Your task to perform on an android device: turn on improve location accuracy Image 0: 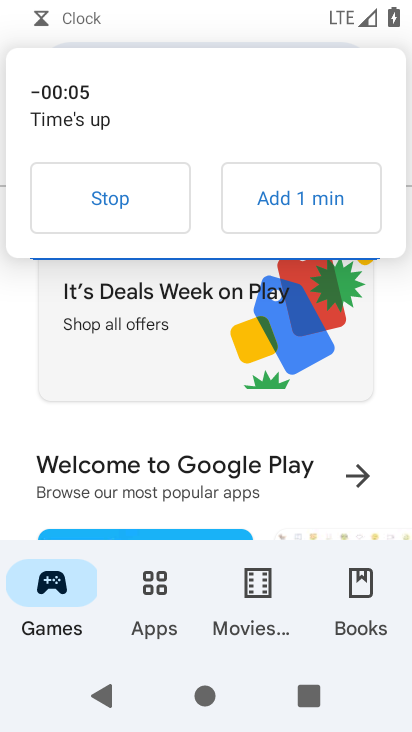
Step 0: press home button
Your task to perform on an android device: turn on improve location accuracy Image 1: 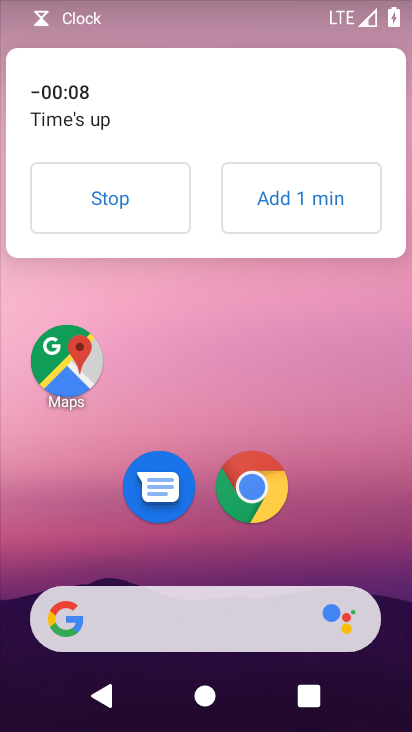
Step 1: drag from (183, 629) to (215, 234)
Your task to perform on an android device: turn on improve location accuracy Image 2: 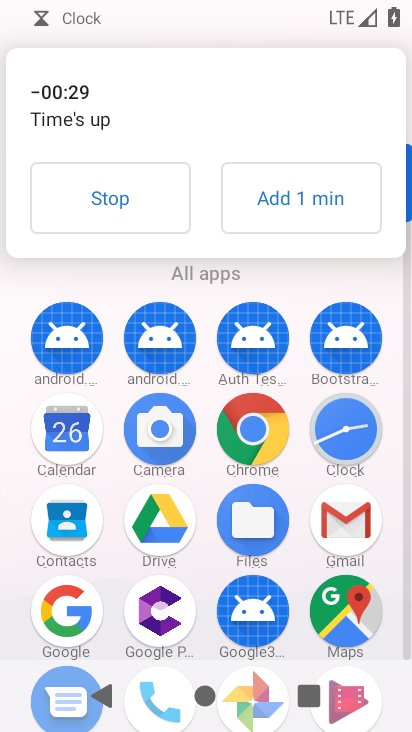
Step 2: click (140, 203)
Your task to perform on an android device: turn on improve location accuracy Image 3: 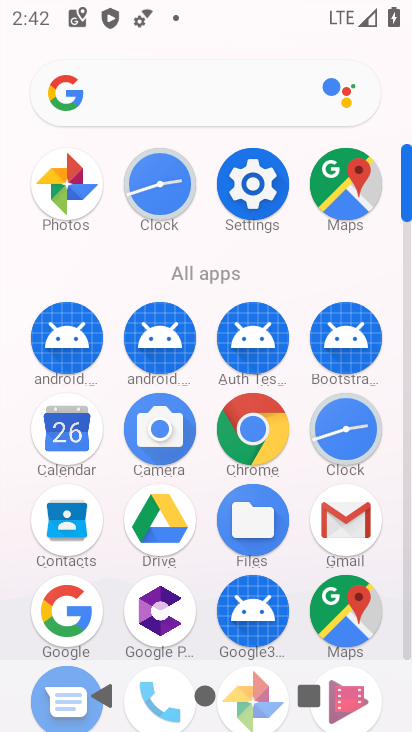
Step 3: click (247, 198)
Your task to perform on an android device: turn on improve location accuracy Image 4: 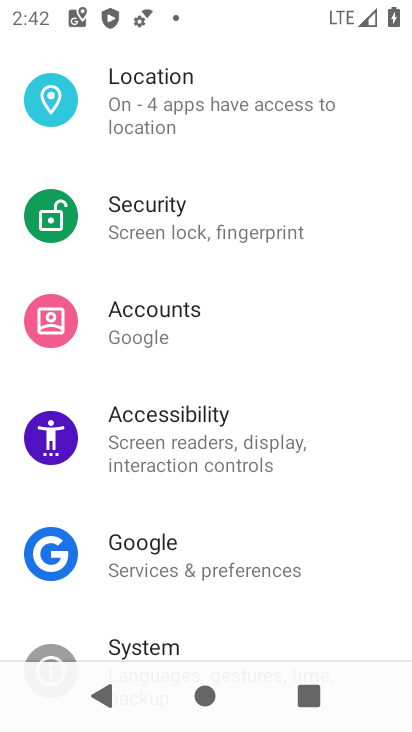
Step 4: drag from (219, 311) to (200, 542)
Your task to perform on an android device: turn on improve location accuracy Image 5: 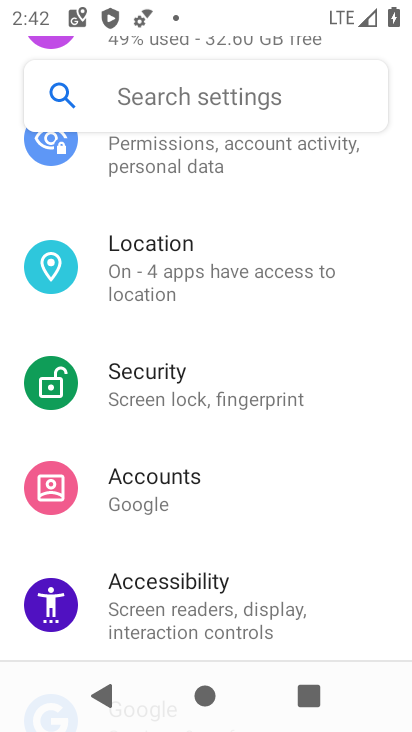
Step 5: click (271, 278)
Your task to perform on an android device: turn on improve location accuracy Image 6: 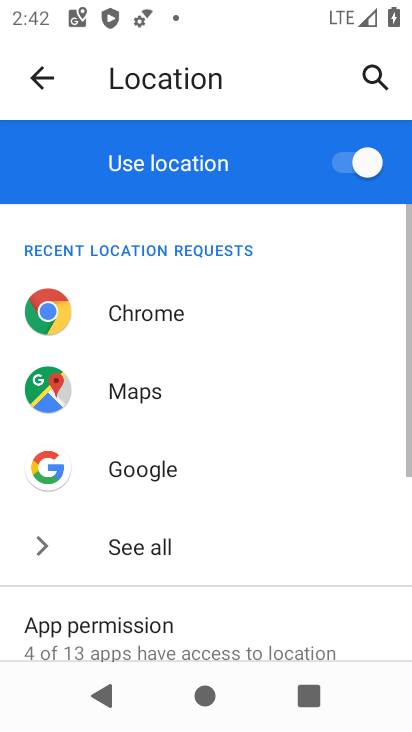
Step 6: drag from (202, 533) to (190, 254)
Your task to perform on an android device: turn on improve location accuracy Image 7: 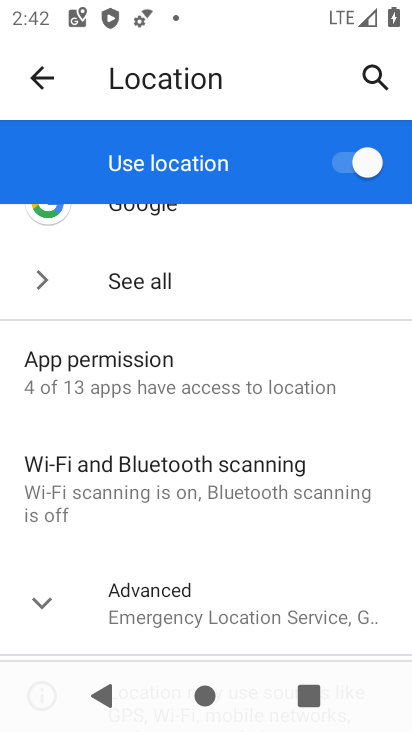
Step 7: drag from (162, 523) to (175, 358)
Your task to perform on an android device: turn on improve location accuracy Image 8: 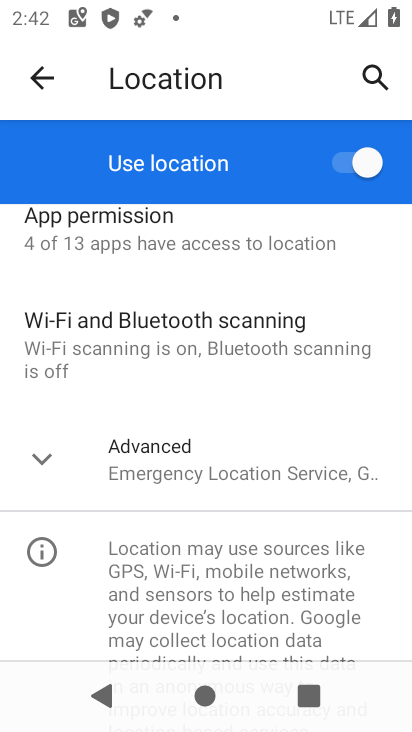
Step 8: click (208, 472)
Your task to perform on an android device: turn on improve location accuracy Image 9: 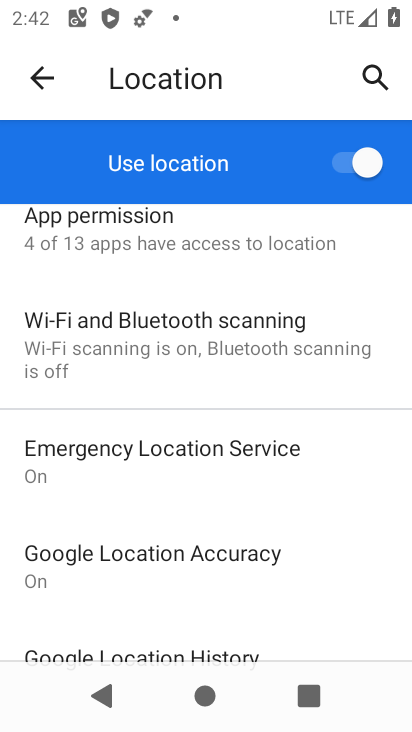
Step 9: drag from (197, 541) to (218, 415)
Your task to perform on an android device: turn on improve location accuracy Image 10: 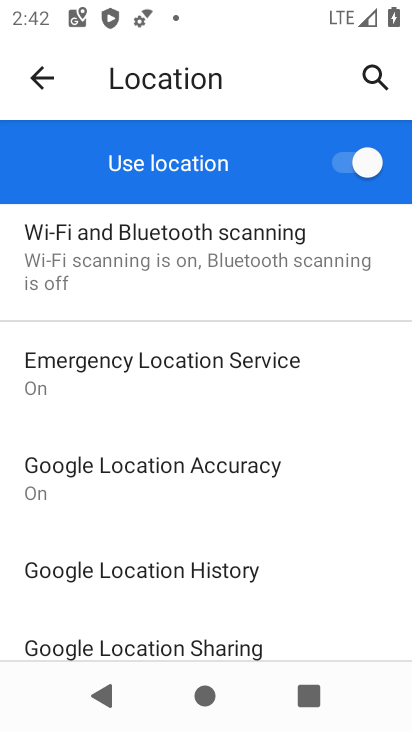
Step 10: click (233, 493)
Your task to perform on an android device: turn on improve location accuracy Image 11: 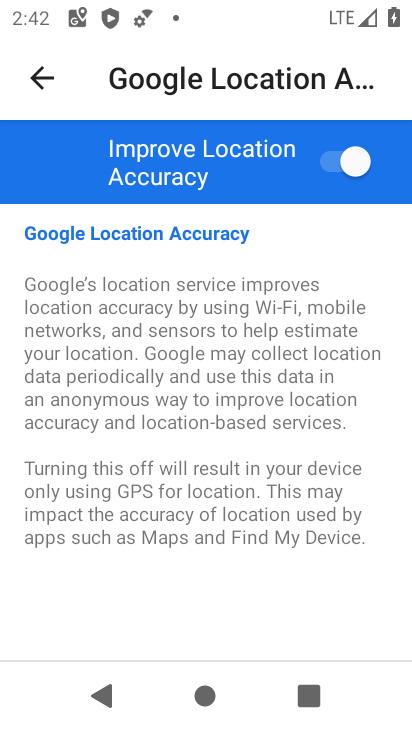
Step 11: task complete